Your task to perform on an android device: delete browsing data in the chrome app Image 0: 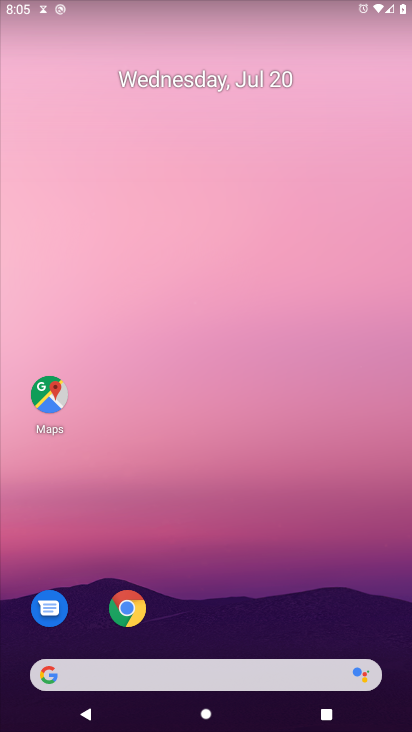
Step 0: click (130, 606)
Your task to perform on an android device: delete browsing data in the chrome app Image 1: 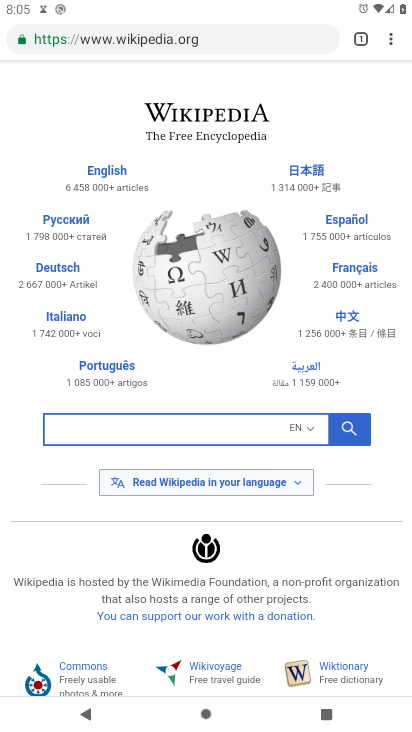
Step 1: click (390, 43)
Your task to perform on an android device: delete browsing data in the chrome app Image 2: 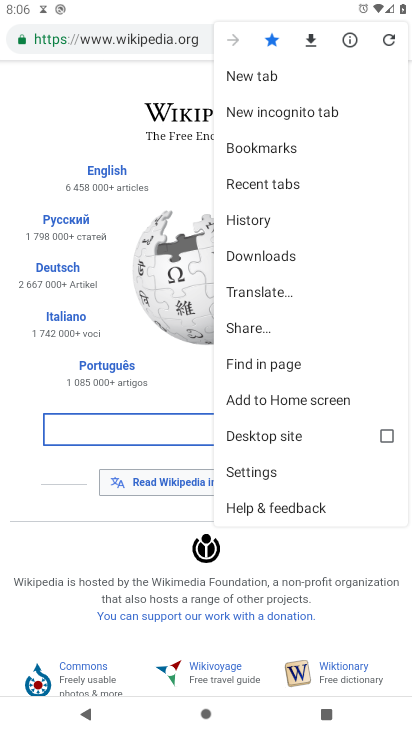
Step 2: click (261, 216)
Your task to perform on an android device: delete browsing data in the chrome app Image 3: 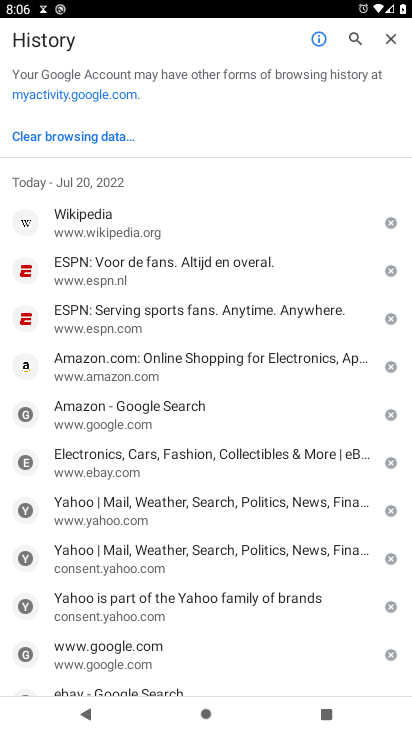
Step 3: click (104, 143)
Your task to perform on an android device: delete browsing data in the chrome app Image 4: 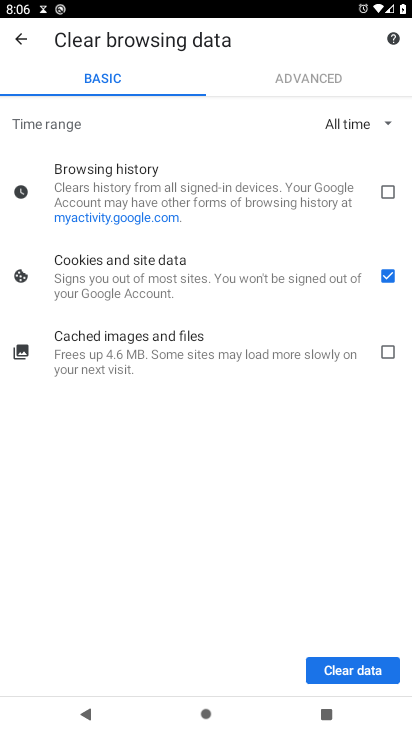
Step 4: click (382, 348)
Your task to perform on an android device: delete browsing data in the chrome app Image 5: 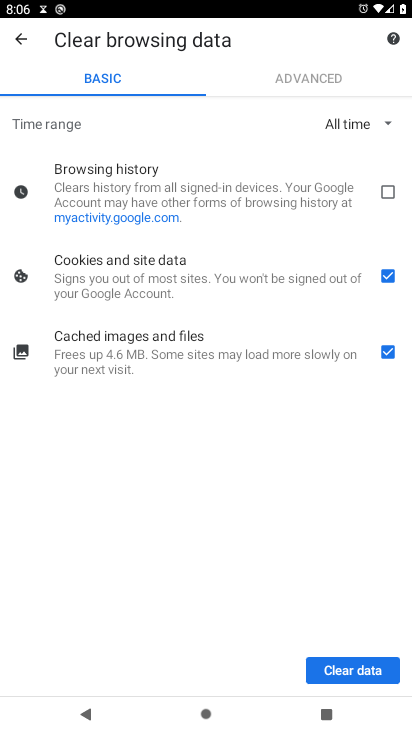
Step 5: click (391, 184)
Your task to perform on an android device: delete browsing data in the chrome app Image 6: 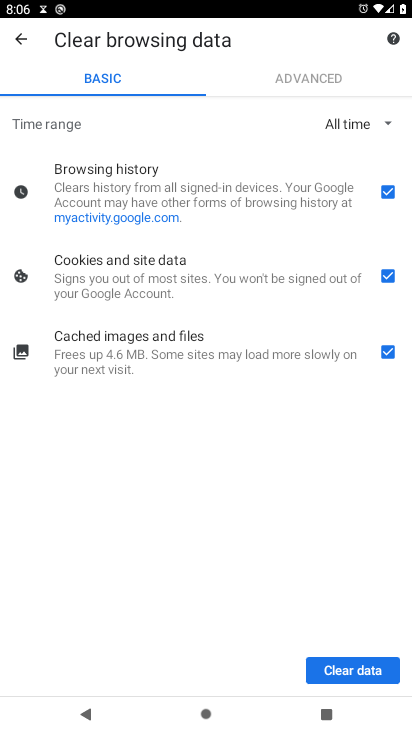
Step 6: click (376, 667)
Your task to perform on an android device: delete browsing data in the chrome app Image 7: 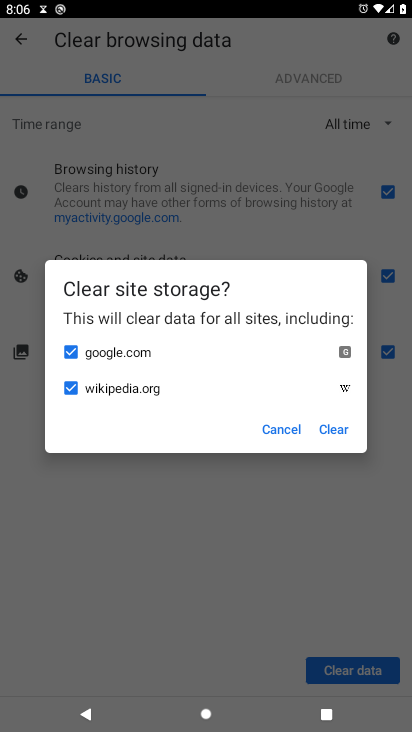
Step 7: click (329, 430)
Your task to perform on an android device: delete browsing data in the chrome app Image 8: 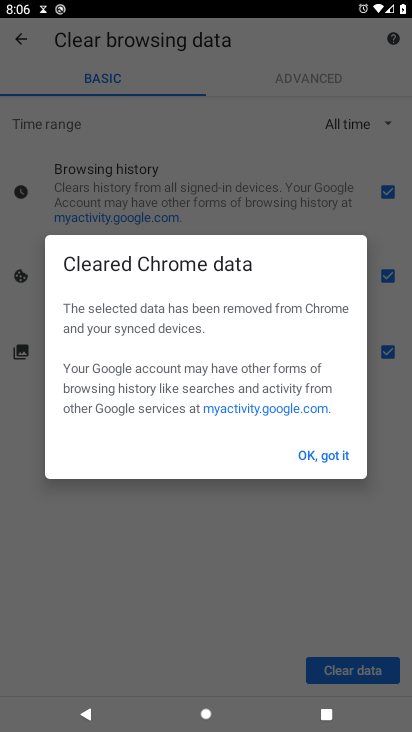
Step 8: click (338, 448)
Your task to perform on an android device: delete browsing data in the chrome app Image 9: 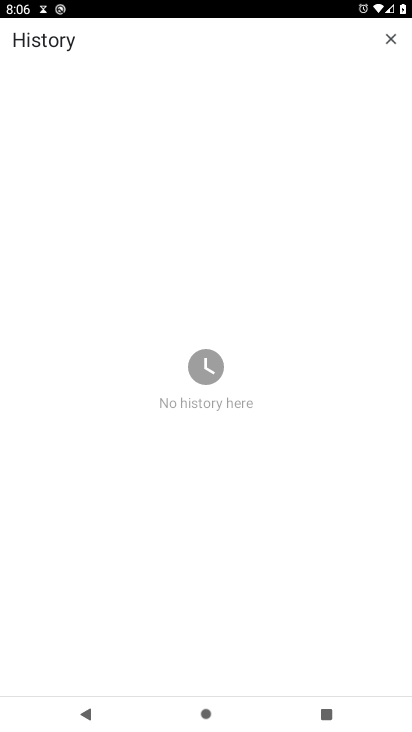
Step 9: task complete